Your task to perform on an android device: delete a single message in the gmail app Image 0: 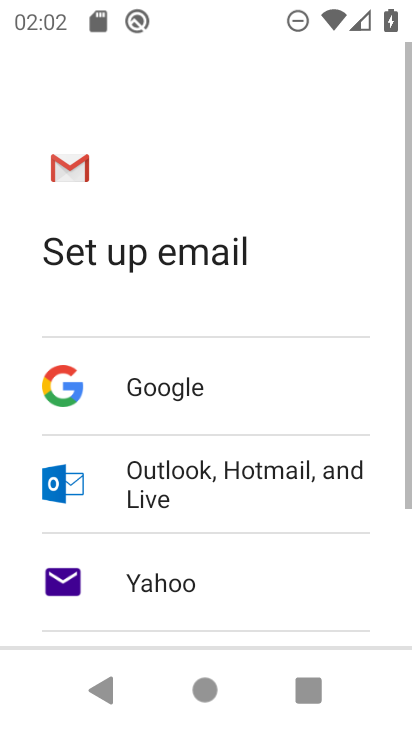
Step 0: press home button
Your task to perform on an android device: delete a single message in the gmail app Image 1: 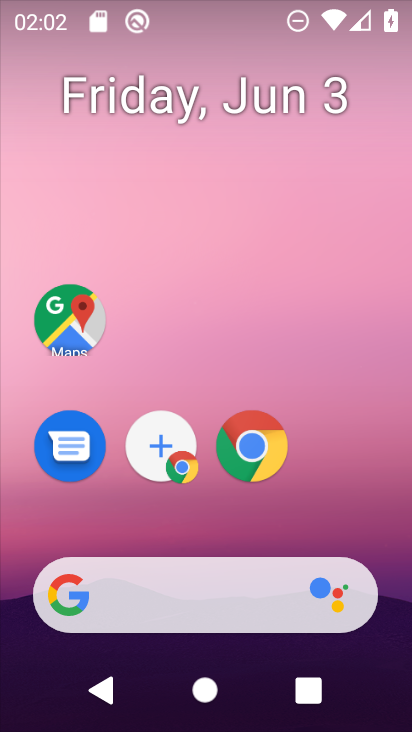
Step 1: drag from (142, 592) to (288, 106)
Your task to perform on an android device: delete a single message in the gmail app Image 2: 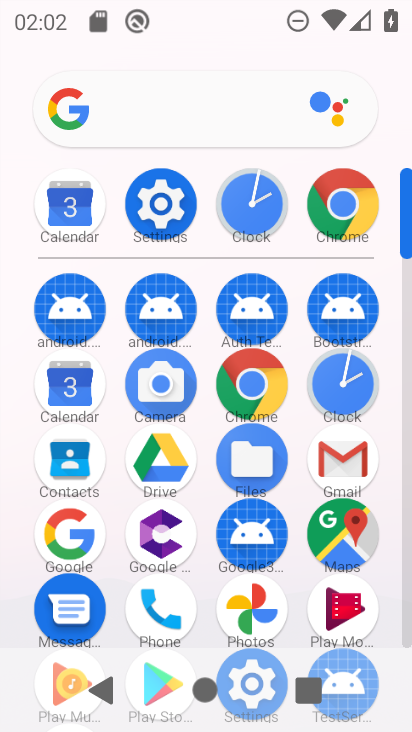
Step 2: click (328, 466)
Your task to perform on an android device: delete a single message in the gmail app Image 3: 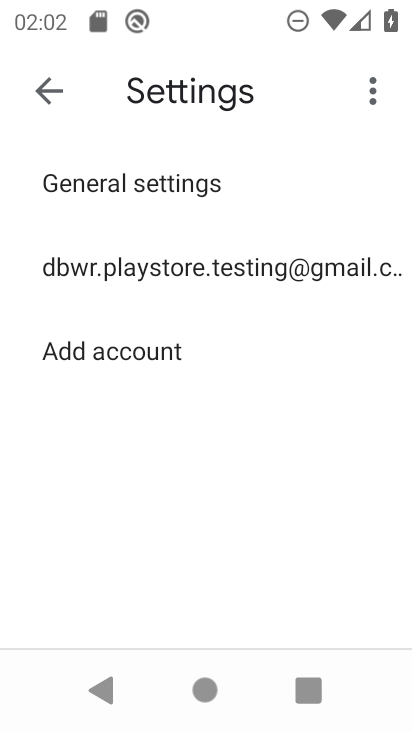
Step 3: click (41, 103)
Your task to perform on an android device: delete a single message in the gmail app Image 4: 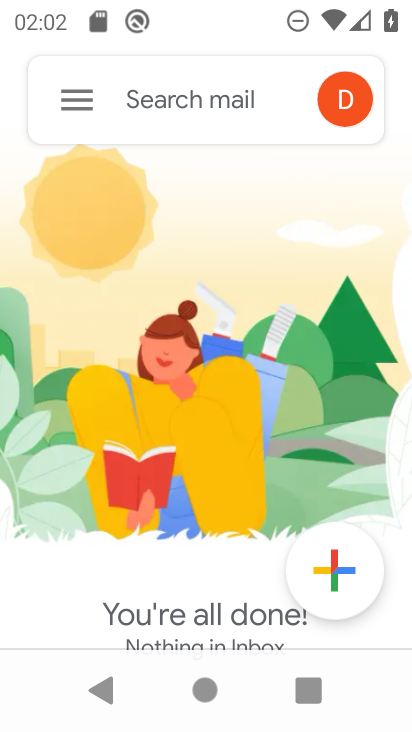
Step 4: task complete